Your task to perform on an android device: Open Google Image 0: 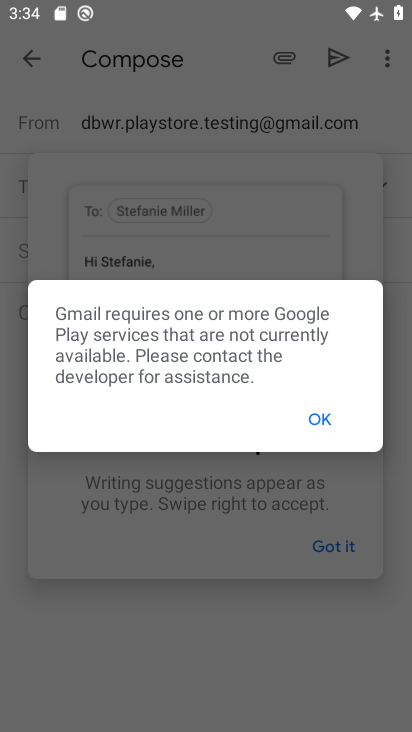
Step 0: press home button
Your task to perform on an android device: Open Google Image 1: 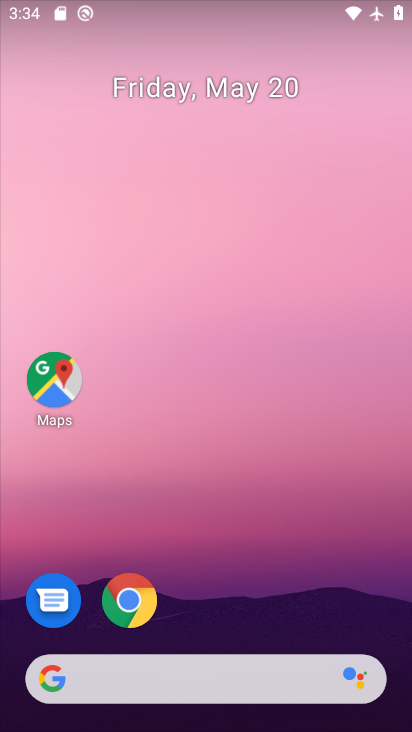
Step 1: drag from (273, 560) to (180, 43)
Your task to perform on an android device: Open Google Image 2: 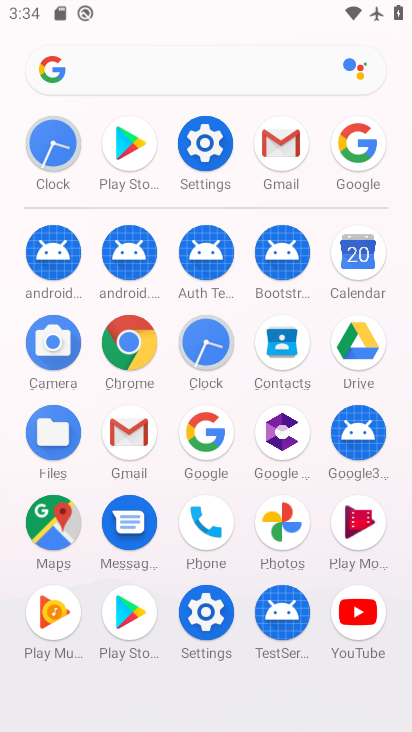
Step 2: click (202, 439)
Your task to perform on an android device: Open Google Image 3: 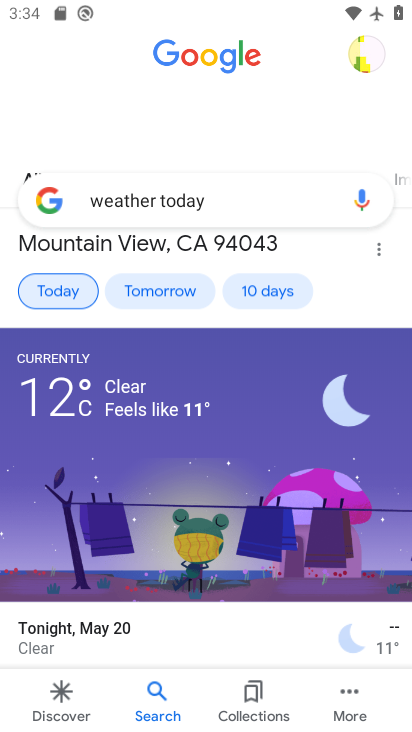
Step 3: task complete